Your task to perform on an android device: What's the weather going to be tomorrow? Image 0: 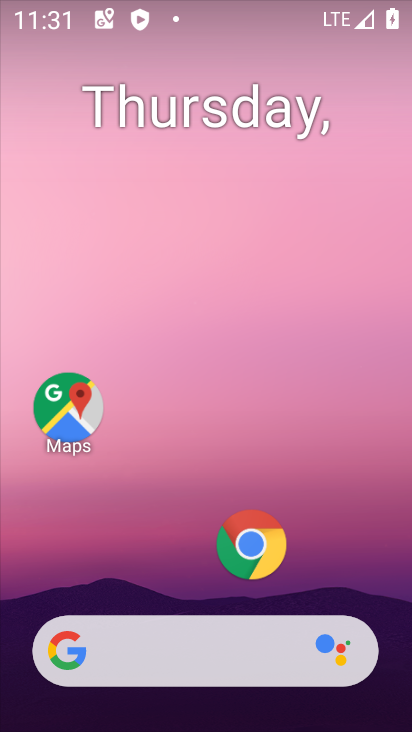
Step 0: click (242, 627)
Your task to perform on an android device: What's the weather going to be tomorrow? Image 1: 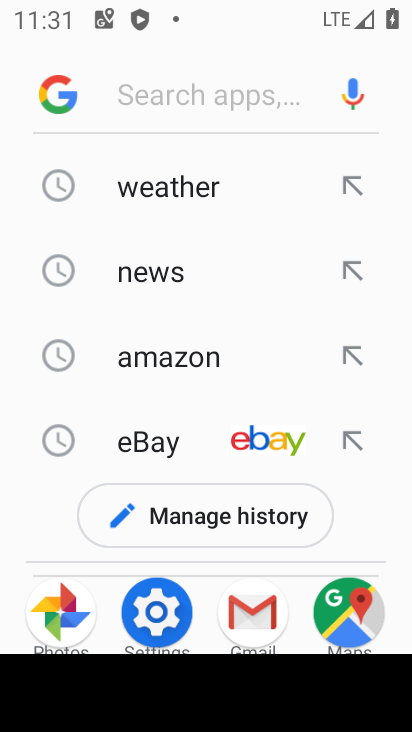
Step 1: click (153, 182)
Your task to perform on an android device: What's the weather going to be tomorrow? Image 2: 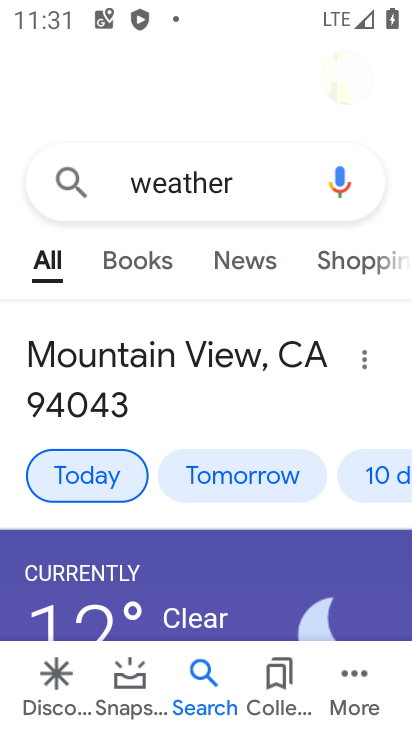
Step 2: task complete